Your task to perform on an android device: What is the news today? Image 0: 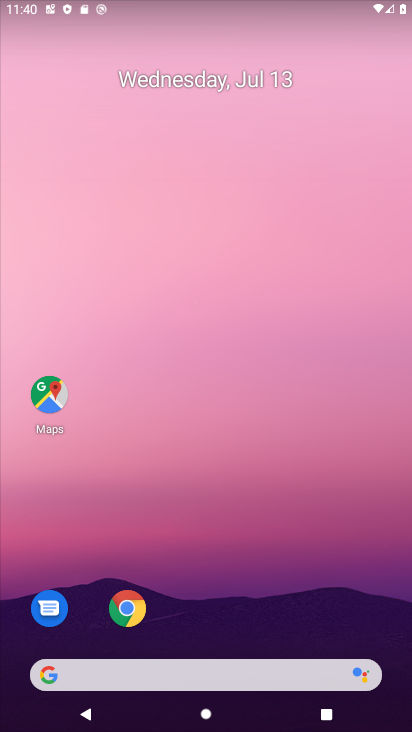
Step 0: click (216, 672)
Your task to perform on an android device: What is the news today? Image 1: 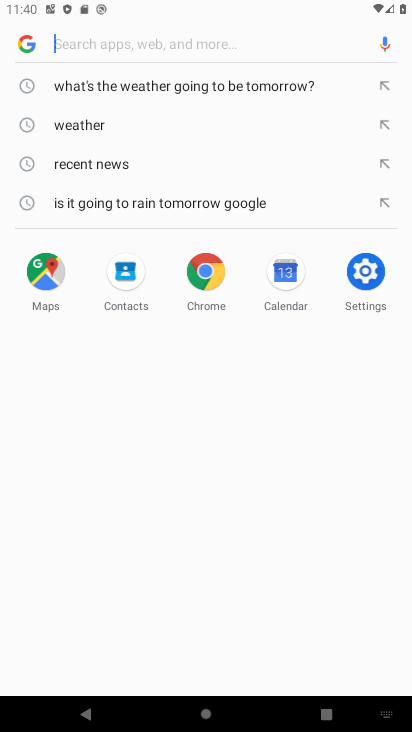
Step 1: type "What is the news today?"
Your task to perform on an android device: What is the news today? Image 2: 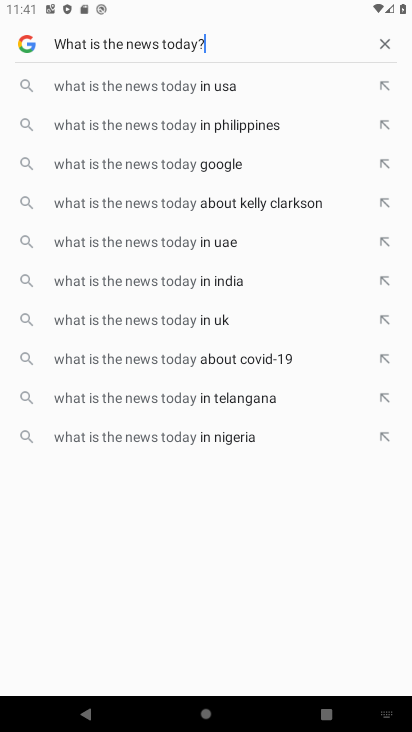
Step 2: press enter
Your task to perform on an android device: What is the news today? Image 3: 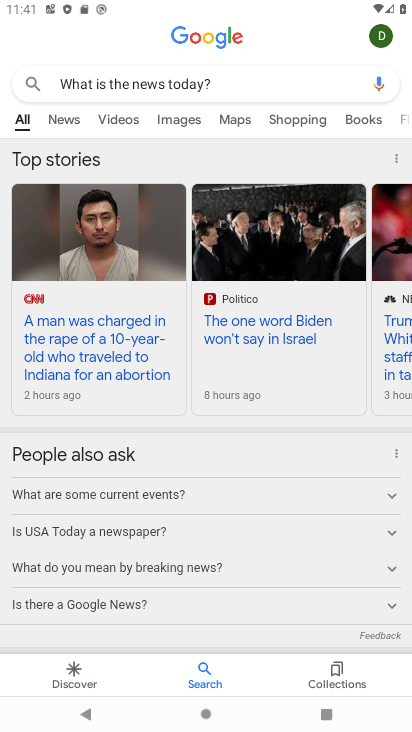
Step 3: task complete